Your task to perform on an android device: What's the weather? Image 0: 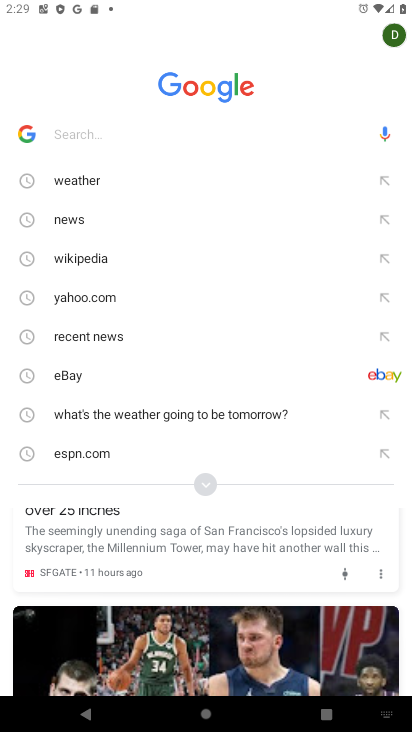
Step 0: click (63, 178)
Your task to perform on an android device: What's the weather? Image 1: 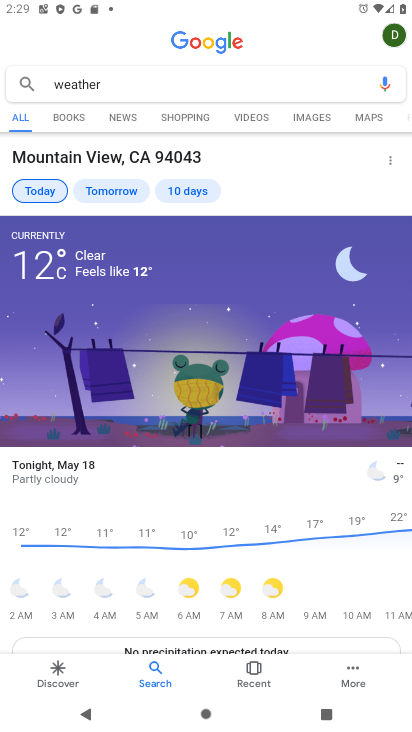
Step 1: task complete